Your task to perform on an android device: turn off airplane mode Image 0: 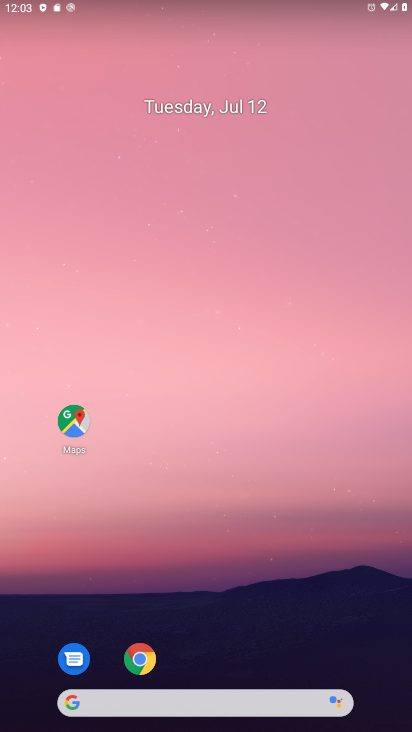
Step 0: drag from (207, 646) to (272, 103)
Your task to perform on an android device: turn off airplane mode Image 1: 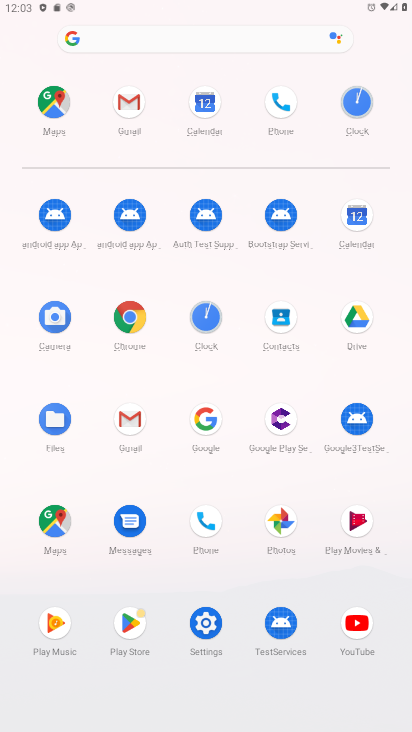
Step 1: click (207, 628)
Your task to perform on an android device: turn off airplane mode Image 2: 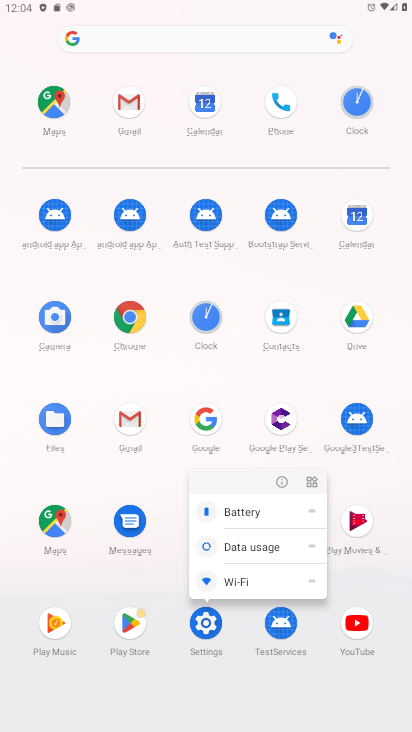
Step 2: click (282, 481)
Your task to perform on an android device: turn off airplane mode Image 3: 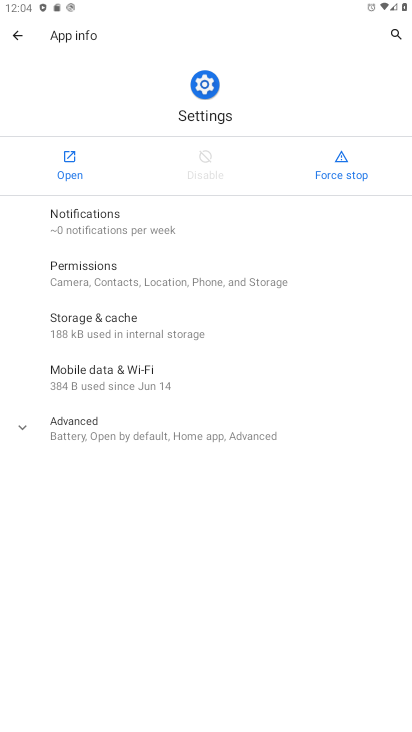
Step 3: click (68, 159)
Your task to perform on an android device: turn off airplane mode Image 4: 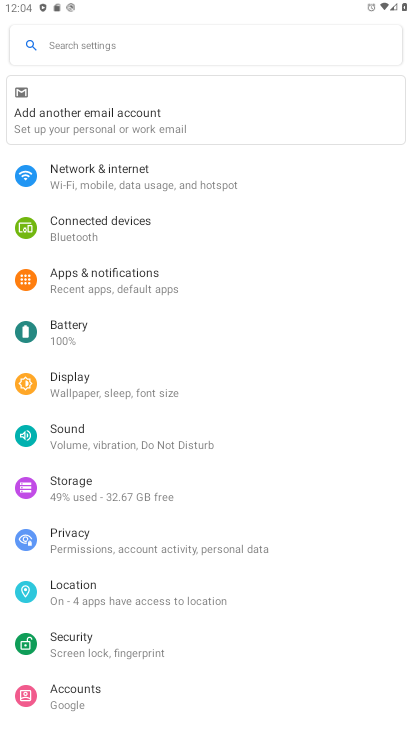
Step 4: click (149, 181)
Your task to perform on an android device: turn off airplane mode Image 5: 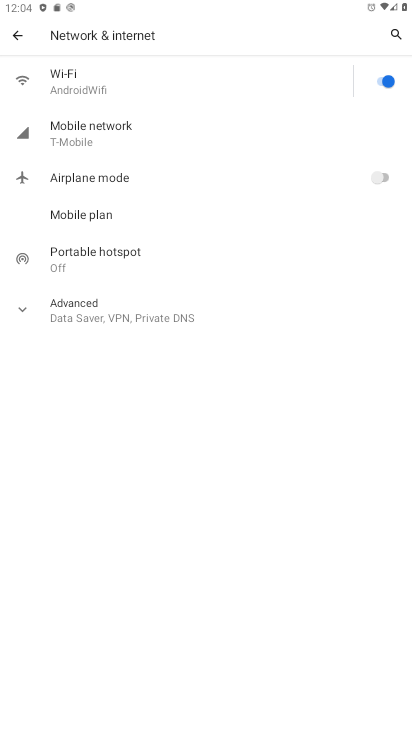
Step 5: task complete